Your task to perform on an android device: allow notifications from all sites in the chrome app Image 0: 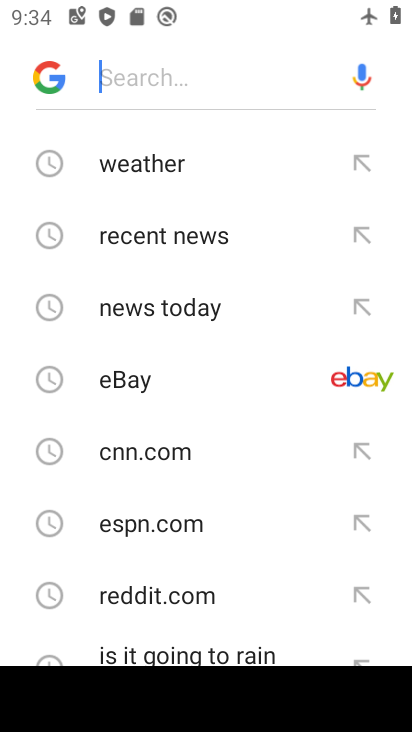
Step 0: drag from (293, 571) to (300, 204)
Your task to perform on an android device: allow notifications from all sites in the chrome app Image 1: 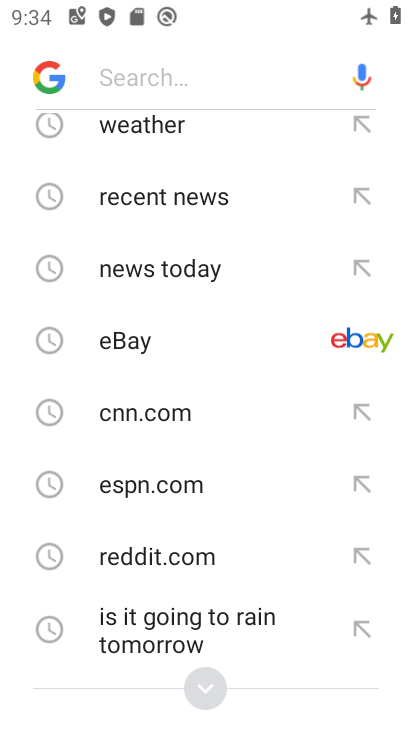
Step 1: press home button
Your task to perform on an android device: allow notifications from all sites in the chrome app Image 2: 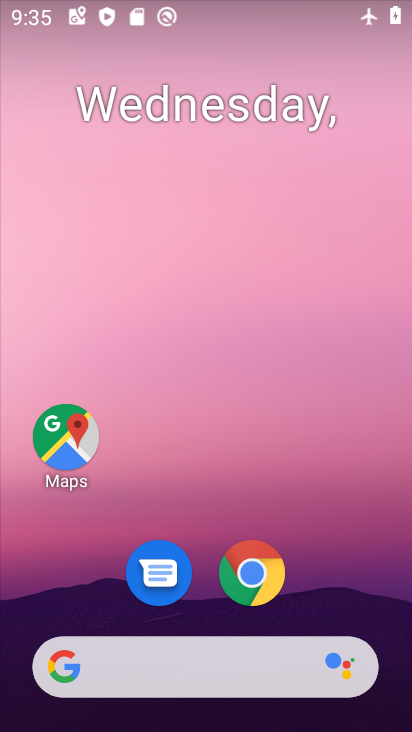
Step 2: click (234, 556)
Your task to perform on an android device: allow notifications from all sites in the chrome app Image 3: 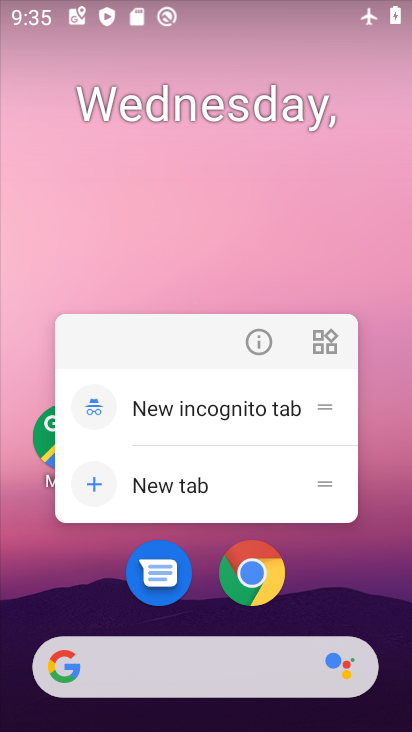
Step 3: click (254, 578)
Your task to perform on an android device: allow notifications from all sites in the chrome app Image 4: 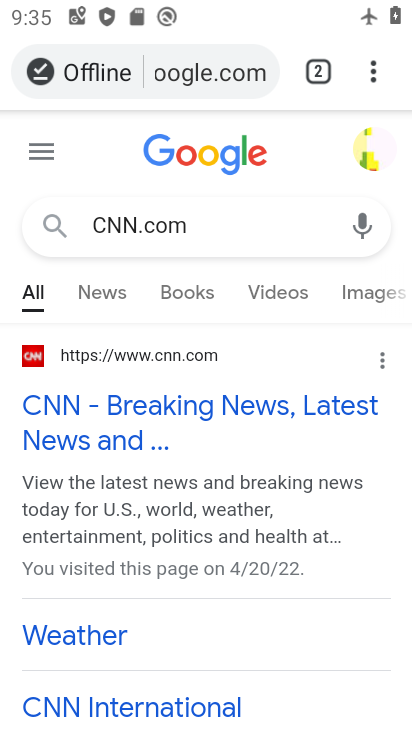
Step 4: click (371, 72)
Your task to perform on an android device: allow notifications from all sites in the chrome app Image 5: 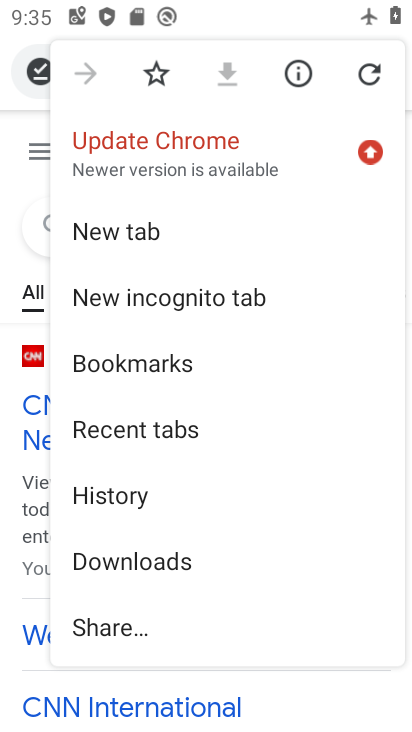
Step 5: drag from (304, 415) to (304, 309)
Your task to perform on an android device: allow notifications from all sites in the chrome app Image 6: 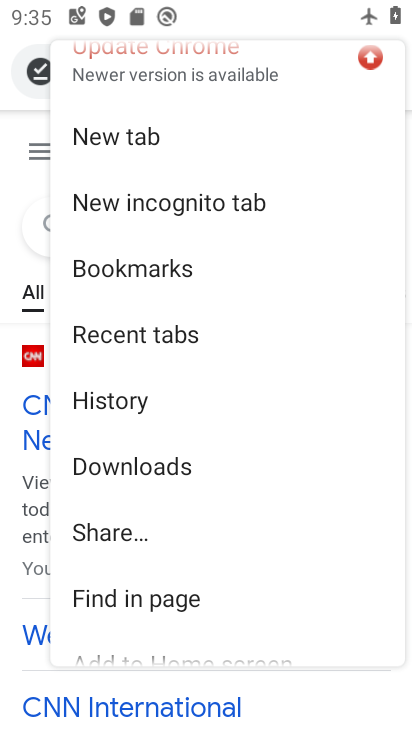
Step 6: drag from (267, 474) to (271, 232)
Your task to perform on an android device: allow notifications from all sites in the chrome app Image 7: 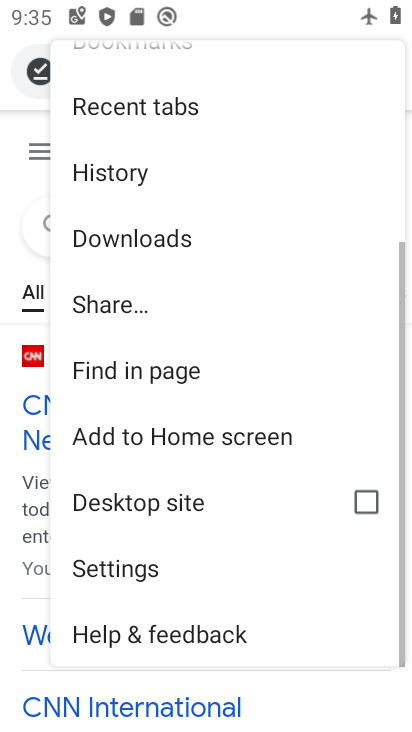
Step 7: click (130, 569)
Your task to perform on an android device: allow notifications from all sites in the chrome app Image 8: 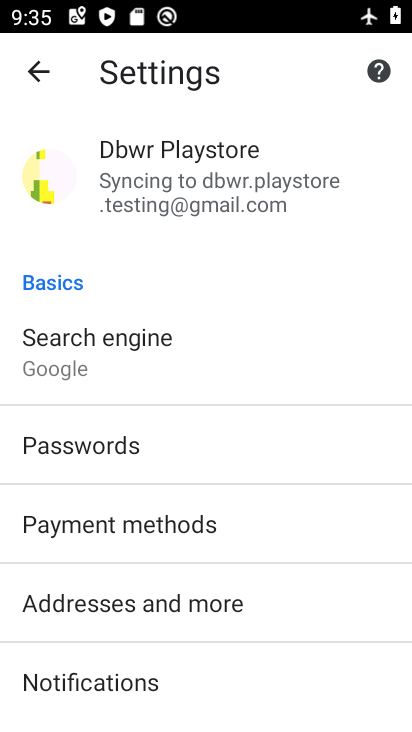
Step 8: drag from (297, 668) to (347, 341)
Your task to perform on an android device: allow notifications from all sites in the chrome app Image 9: 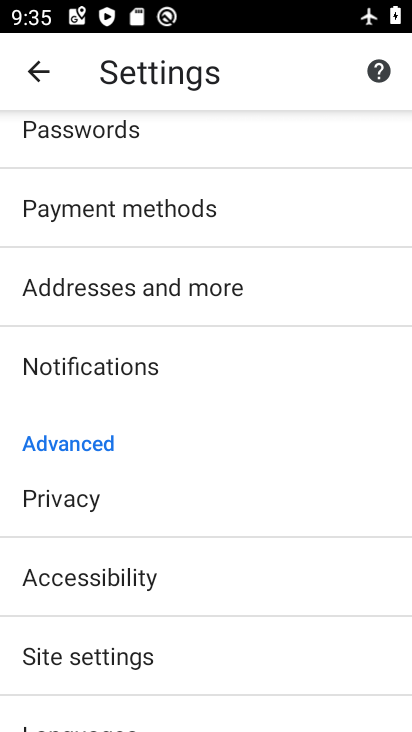
Step 9: drag from (280, 501) to (283, 354)
Your task to perform on an android device: allow notifications from all sites in the chrome app Image 10: 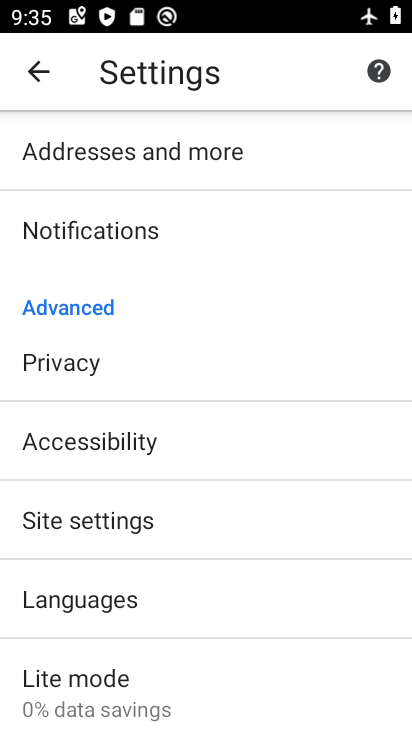
Step 10: click (49, 522)
Your task to perform on an android device: allow notifications from all sites in the chrome app Image 11: 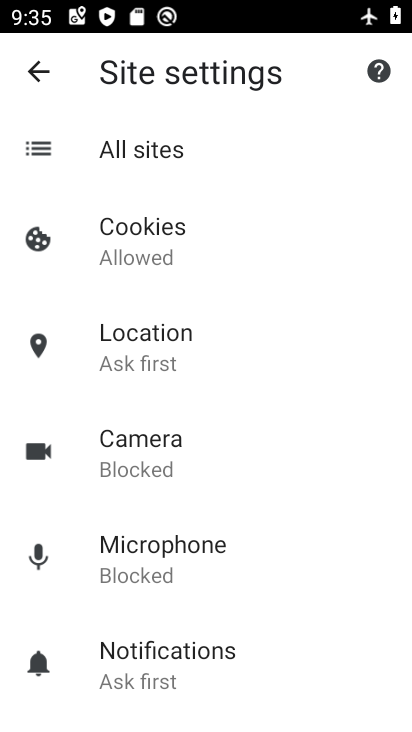
Step 11: click (143, 658)
Your task to perform on an android device: allow notifications from all sites in the chrome app Image 12: 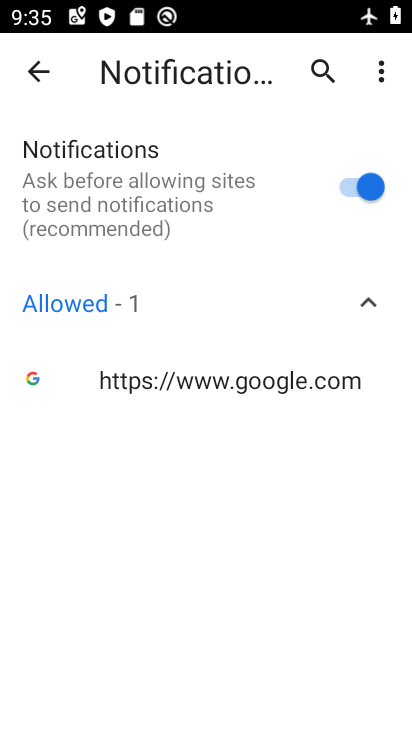
Step 12: task complete